Your task to perform on an android device: Open calendar and show me the fourth week of next month Image 0: 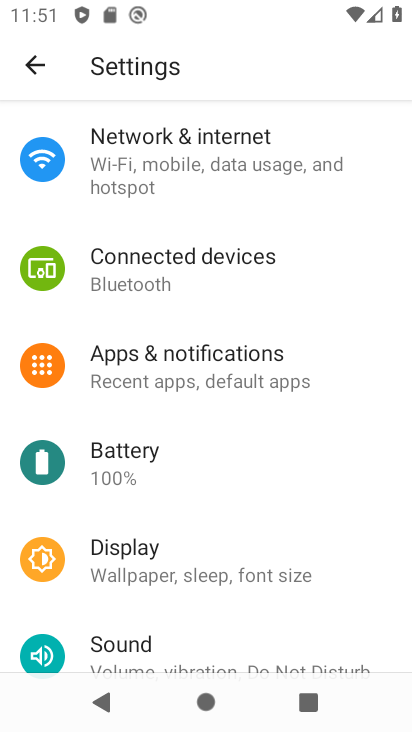
Step 0: press home button
Your task to perform on an android device: Open calendar and show me the fourth week of next month Image 1: 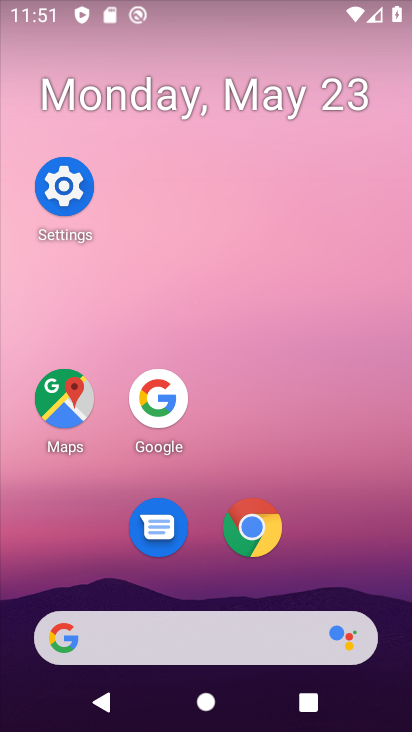
Step 1: drag from (332, 545) to (279, 16)
Your task to perform on an android device: Open calendar and show me the fourth week of next month Image 2: 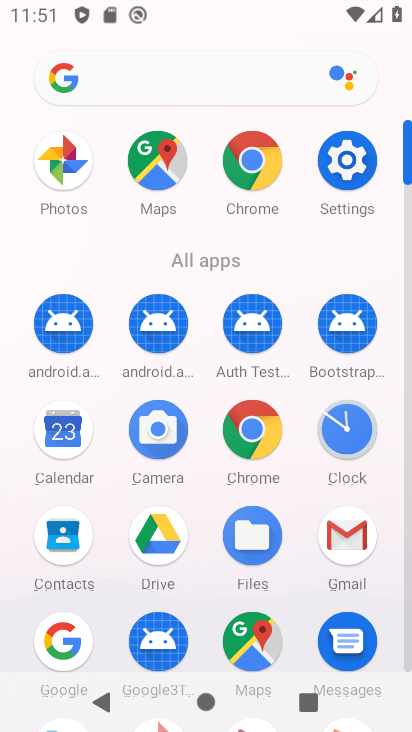
Step 2: click (40, 463)
Your task to perform on an android device: Open calendar and show me the fourth week of next month Image 3: 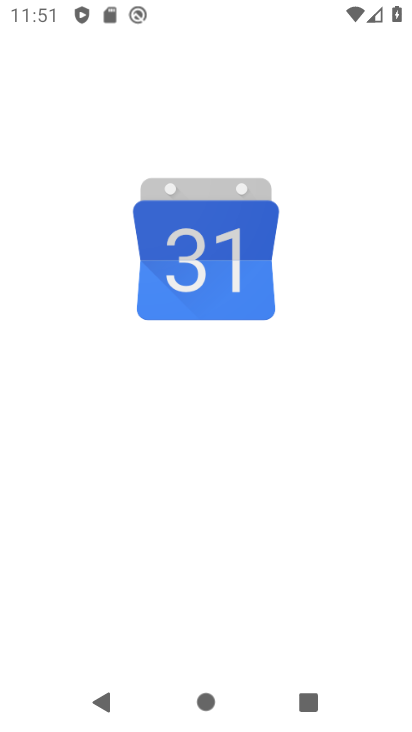
Step 3: click (64, 445)
Your task to perform on an android device: Open calendar and show me the fourth week of next month Image 4: 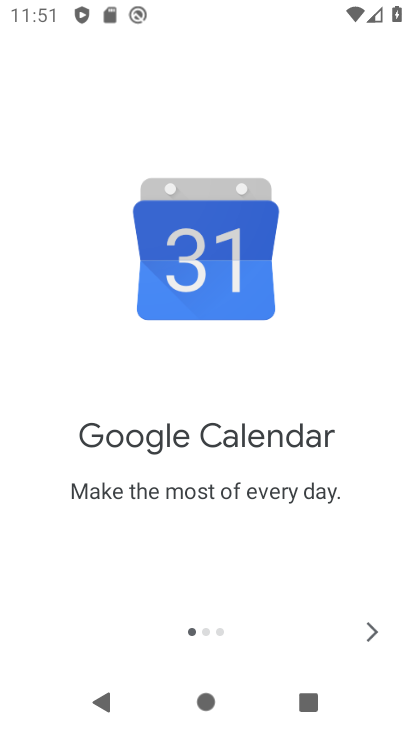
Step 4: click (374, 612)
Your task to perform on an android device: Open calendar and show me the fourth week of next month Image 5: 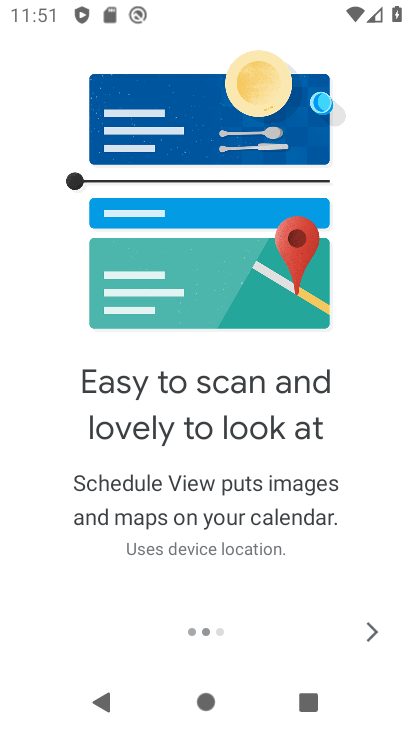
Step 5: click (375, 624)
Your task to perform on an android device: Open calendar and show me the fourth week of next month Image 6: 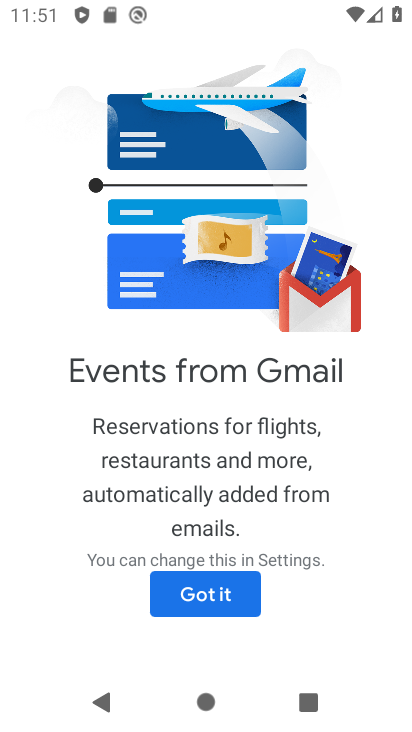
Step 6: click (159, 595)
Your task to perform on an android device: Open calendar and show me the fourth week of next month Image 7: 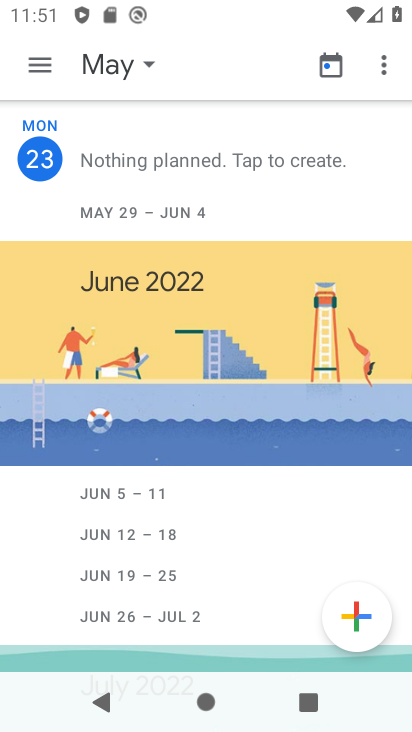
Step 7: click (110, 55)
Your task to perform on an android device: Open calendar and show me the fourth week of next month Image 8: 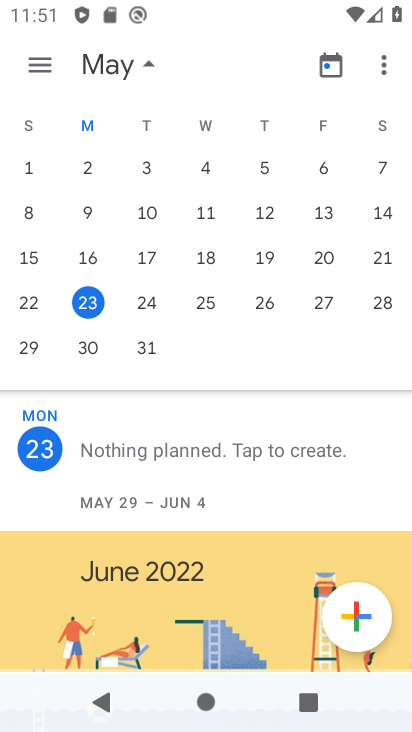
Step 8: drag from (384, 261) to (50, 230)
Your task to perform on an android device: Open calendar and show me the fourth week of next month Image 9: 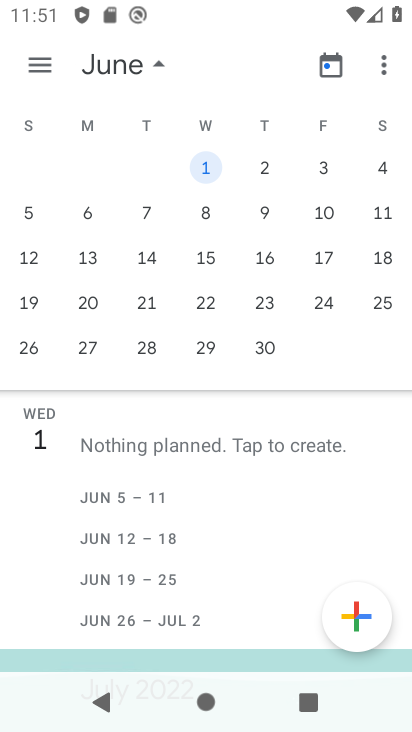
Step 9: click (33, 70)
Your task to perform on an android device: Open calendar and show me the fourth week of next month Image 10: 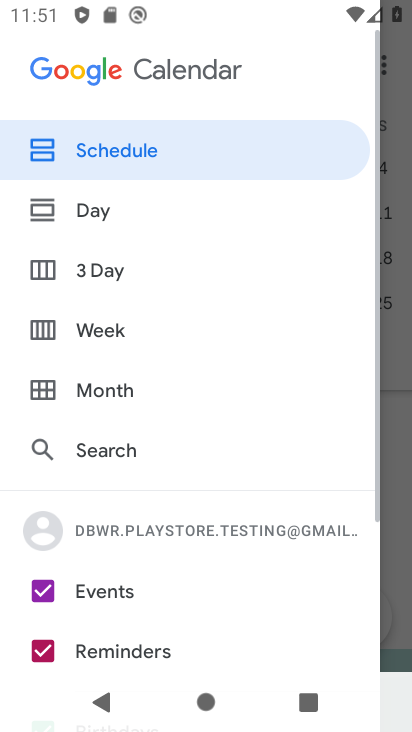
Step 10: click (133, 316)
Your task to perform on an android device: Open calendar and show me the fourth week of next month Image 11: 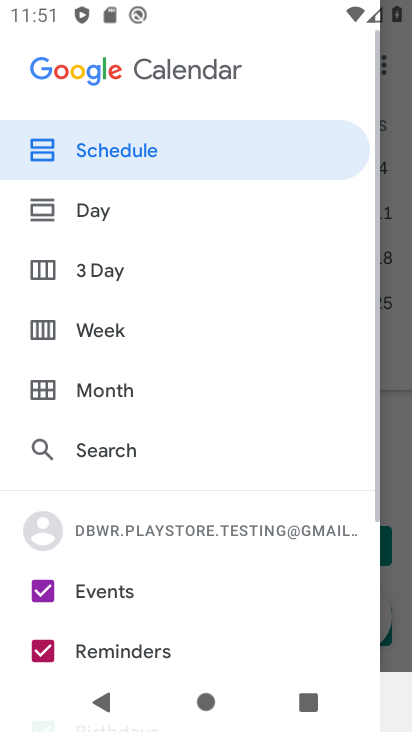
Step 11: click (135, 326)
Your task to perform on an android device: Open calendar and show me the fourth week of next month Image 12: 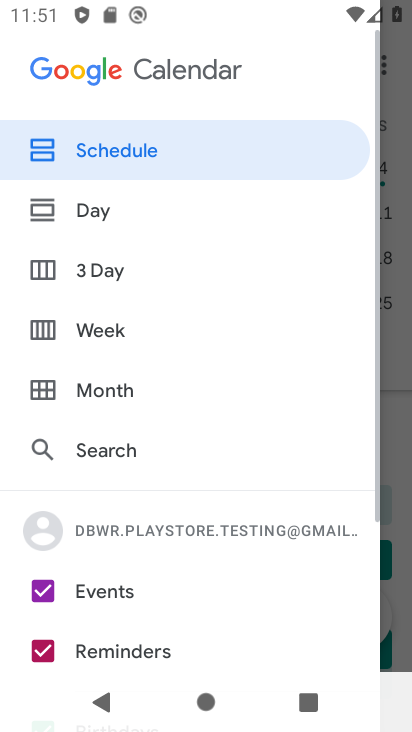
Step 12: click (109, 324)
Your task to perform on an android device: Open calendar and show me the fourth week of next month Image 13: 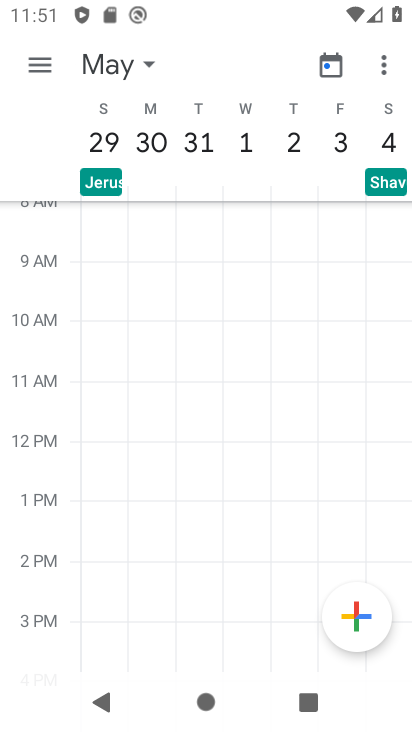
Step 13: task complete